Your task to perform on an android device: Set the phone to "Do not disturb". Image 0: 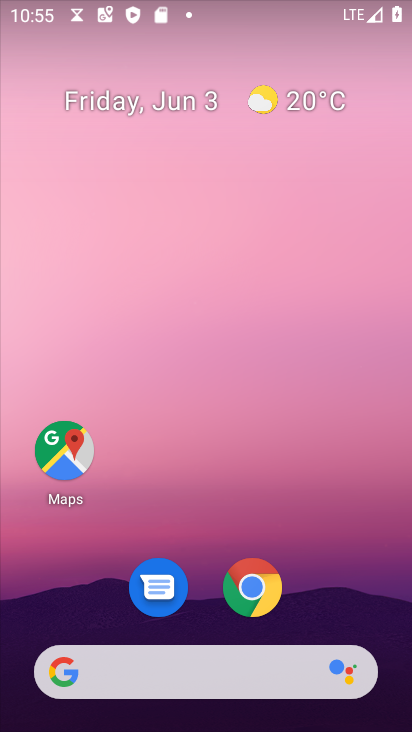
Step 0: drag from (231, 171) to (99, 84)
Your task to perform on an android device: Set the phone to "Do not disturb". Image 1: 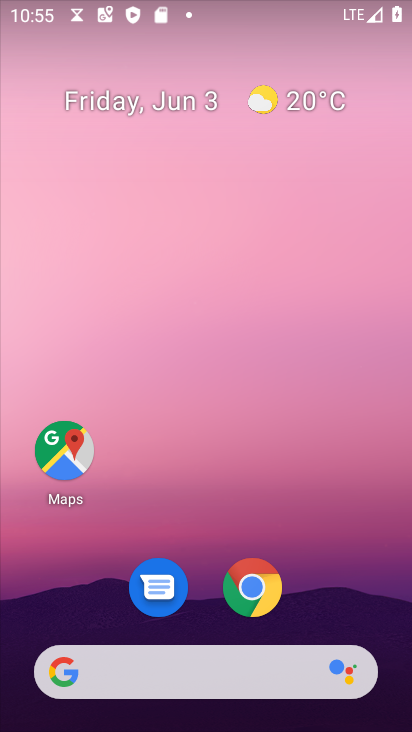
Step 1: drag from (301, 490) to (127, 13)
Your task to perform on an android device: Set the phone to "Do not disturb". Image 2: 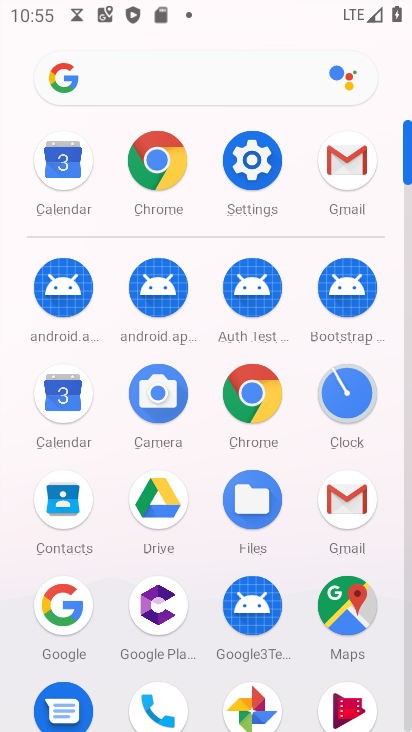
Step 2: click (237, 150)
Your task to perform on an android device: Set the phone to "Do not disturb". Image 3: 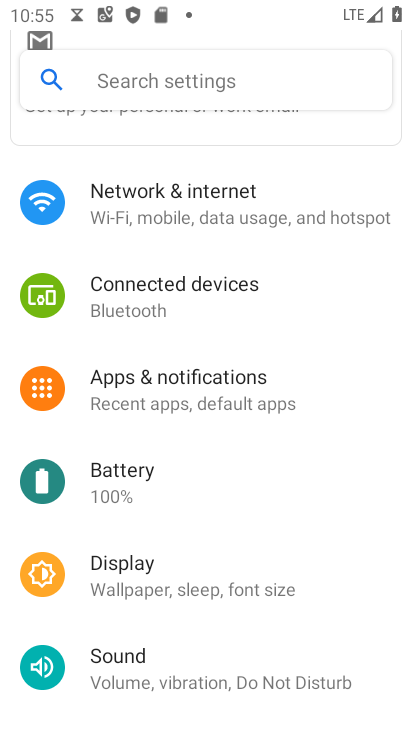
Step 3: click (223, 692)
Your task to perform on an android device: Set the phone to "Do not disturb". Image 4: 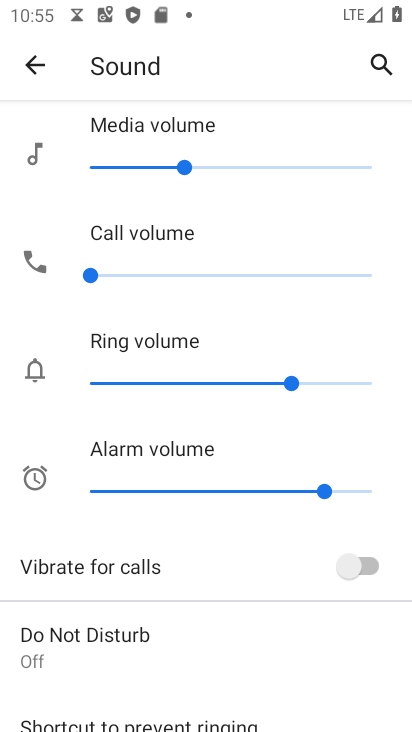
Step 4: click (200, 659)
Your task to perform on an android device: Set the phone to "Do not disturb". Image 5: 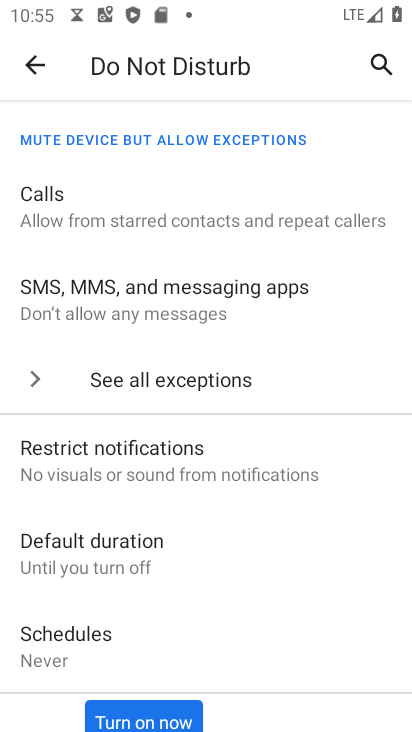
Step 5: click (152, 712)
Your task to perform on an android device: Set the phone to "Do not disturb". Image 6: 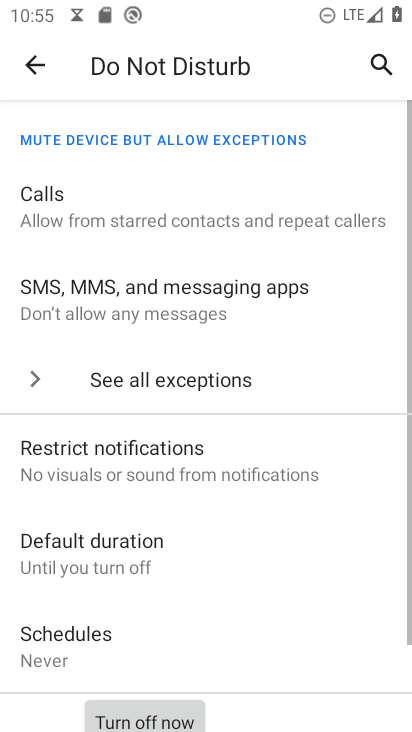
Step 6: task complete